Your task to perform on an android device: remove spam from my inbox in the gmail app Image 0: 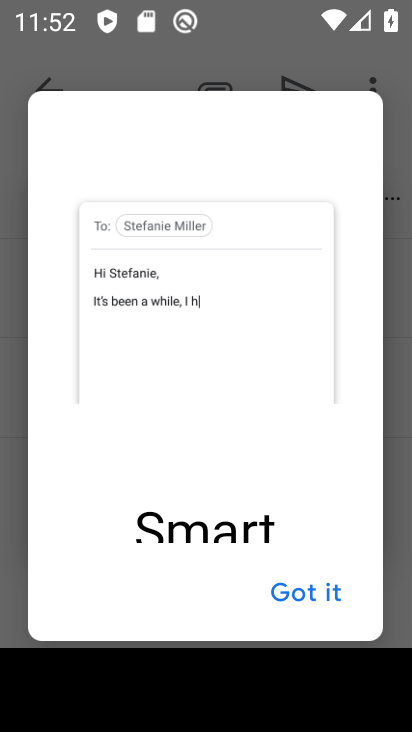
Step 0: press home button
Your task to perform on an android device: remove spam from my inbox in the gmail app Image 1: 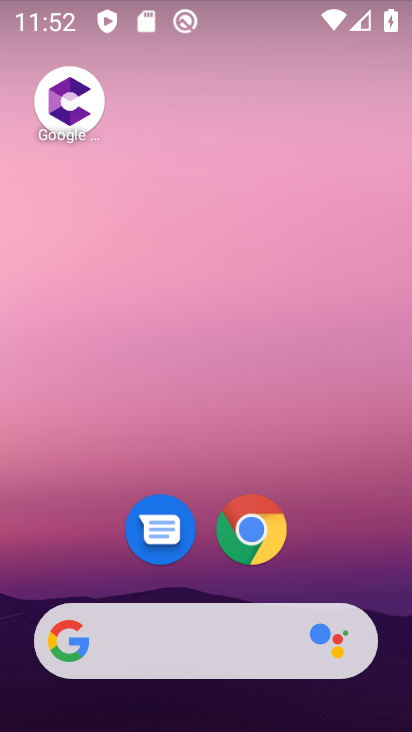
Step 1: drag from (288, 583) to (302, 40)
Your task to perform on an android device: remove spam from my inbox in the gmail app Image 2: 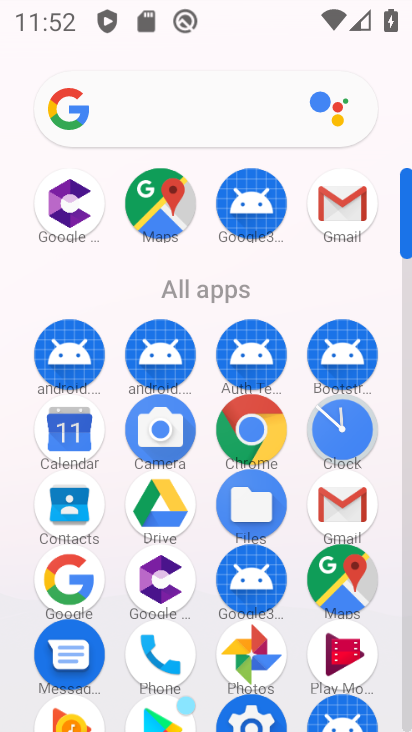
Step 2: click (326, 512)
Your task to perform on an android device: remove spam from my inbox in the gmail app Image 3: 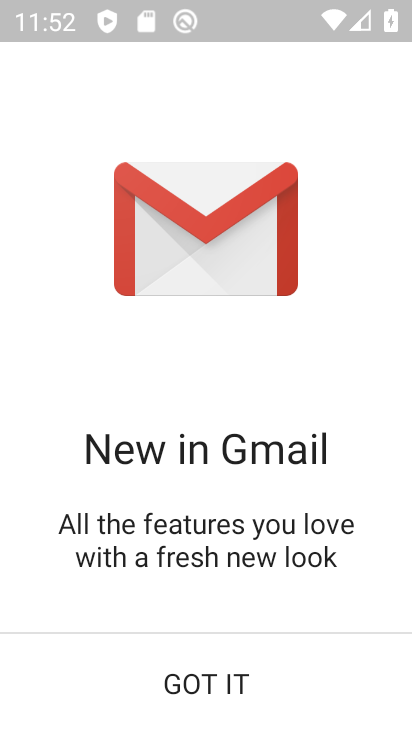
Step 3: click (91, 705)
Your task to perform on an android device: remove spam from my inbox in the gmail app Image 4: 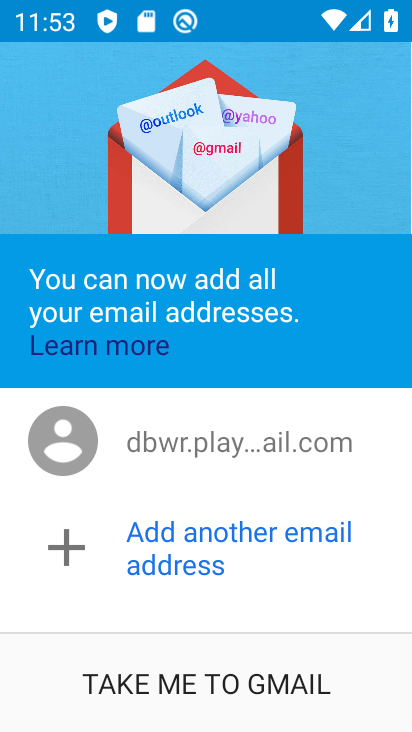
Step 4: click (177, 673)
Your task to perform on an android device: remove spam from my inbox in the gmail app Image 5: 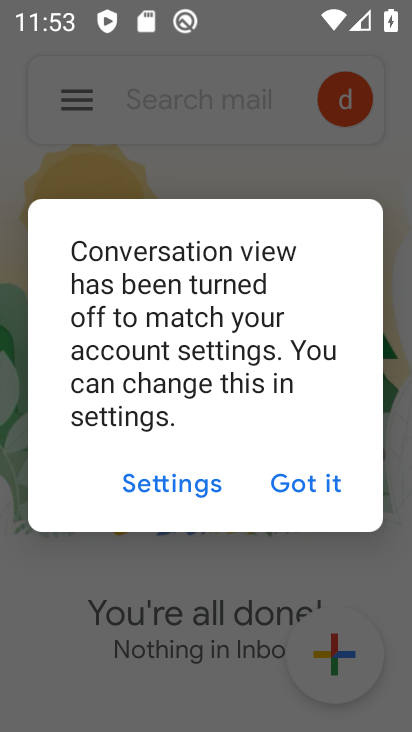
Step 5: click (335, 484)
Your task to perform on an android device: remove spam from my inbox in the gmail app Image 6: 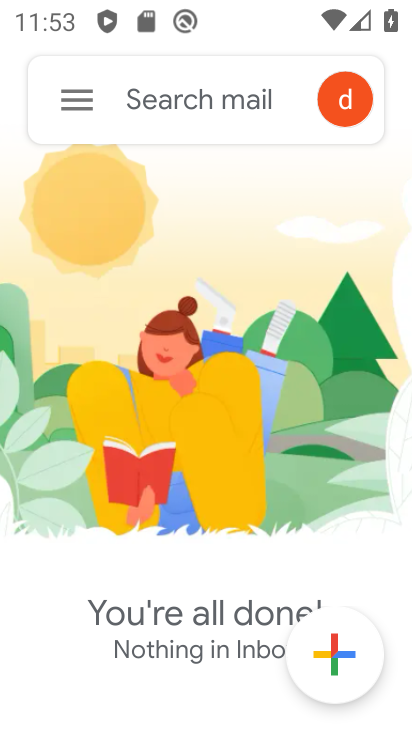
Step 6: click (63, 106)
Your task to perform on an android device: remove spam from my inbox in the gmail app Image 7: 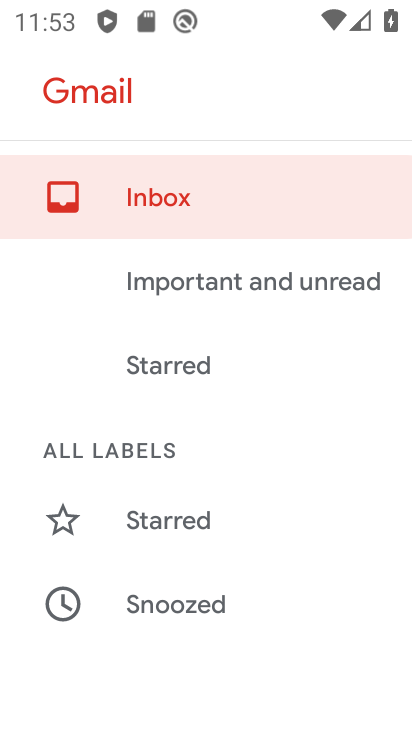
Step 7: drag from (170, 283) to (216, 471)
Your task to perform on an android device: remove spam from my inbox in the gmail app Image 8: 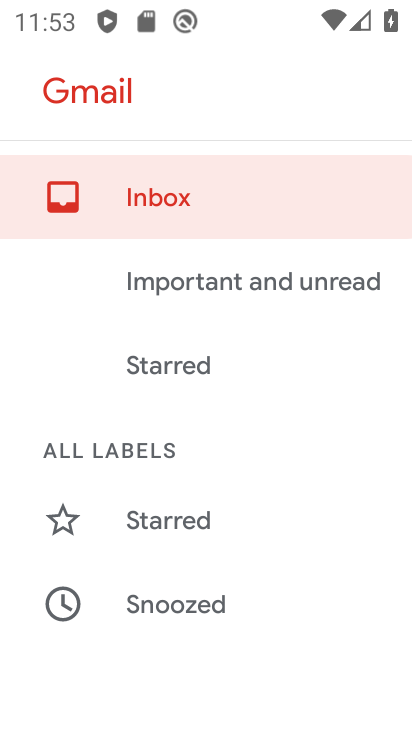
Step 8: drag from (236, 295) to (225, 557)
Your task to perform on an android device: remove spam from my inbox in the gmail app Image 9: 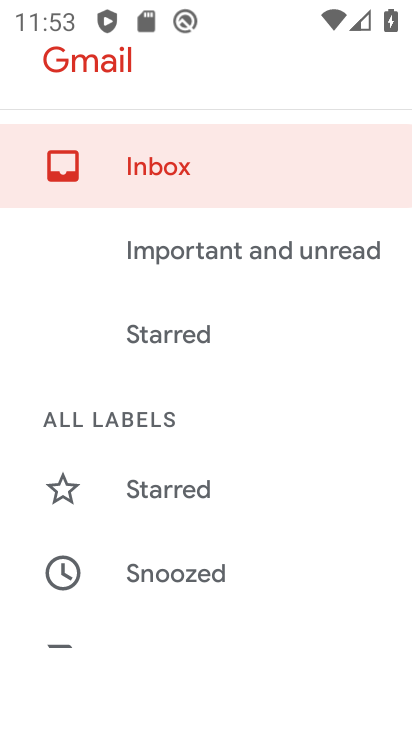
Step 9: drag from (175, 227) to (237, 614)
Your task to perform on an android device: remove spam from my inbox in the gmail app Image 10: 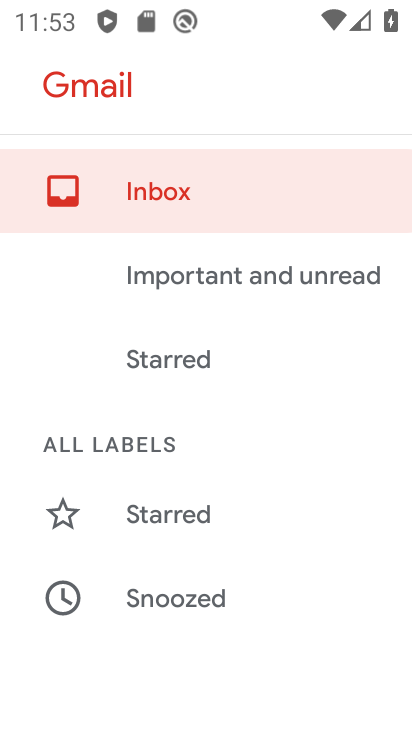
Step 10: drag from (177, 566) to (223, 161)
Your task to perform on an android device: remove spam from my inbox in the gmail app Image 11: 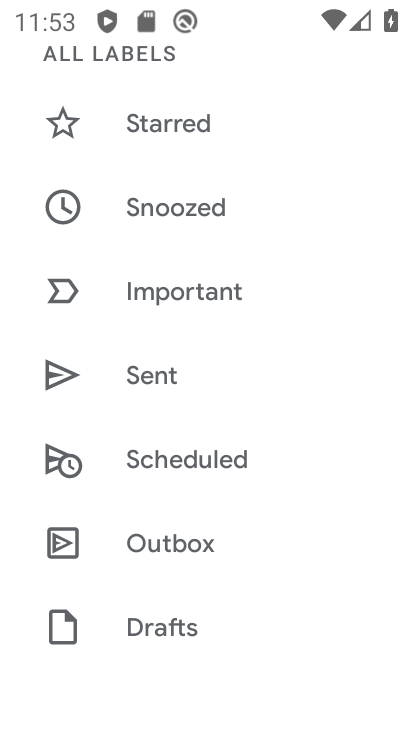
Step 11: drag from (170, 568) to (172, 282)
Your task to perform on an android device: remove spam from my inbox in the gmail app Image 12: 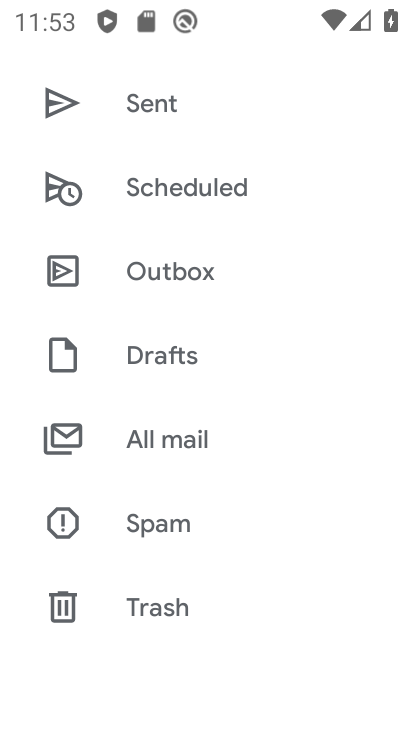
Step 12: click (164, 526)
Your task to perform on an android device: remove spam from my inbox in the gmail app Image 13: 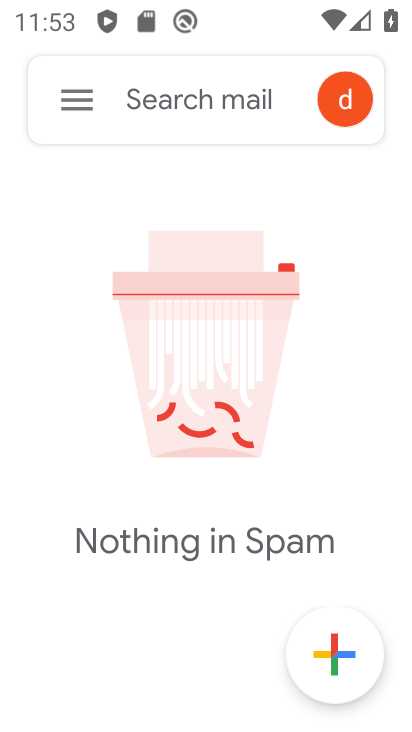
Step 13: task complete